Your task to perform on an android device: delete a single message in the gmail app Image 0: 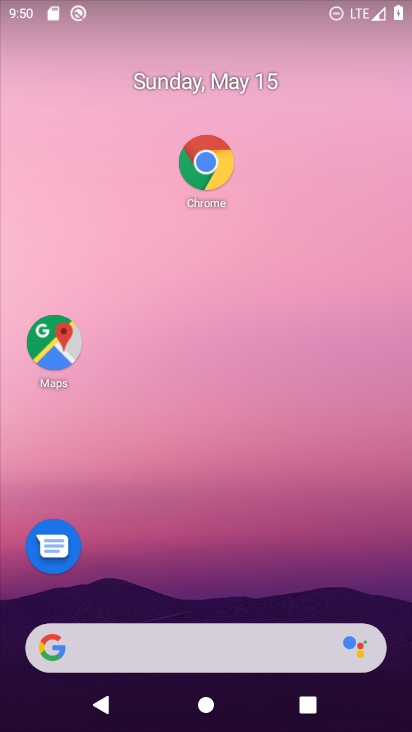
Step 0: drag from (196, 585) to (227, 69)
Your task to perform on an android device: delete a single message in the gmail app Image 1: 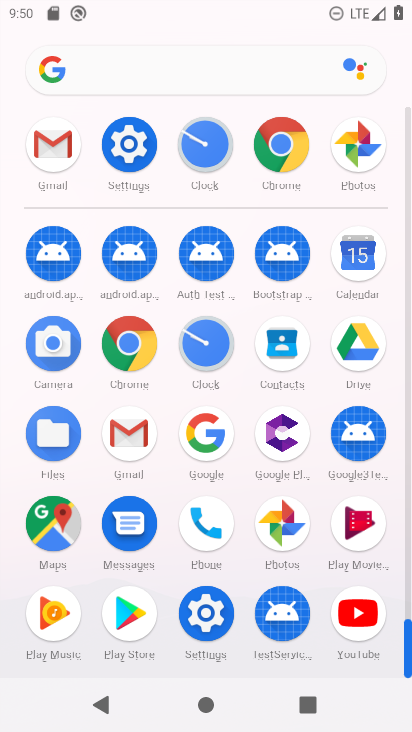
Step 1: click (116, 431)
Your task to perform on an android device: delete a single message in the gmail app Image 2: 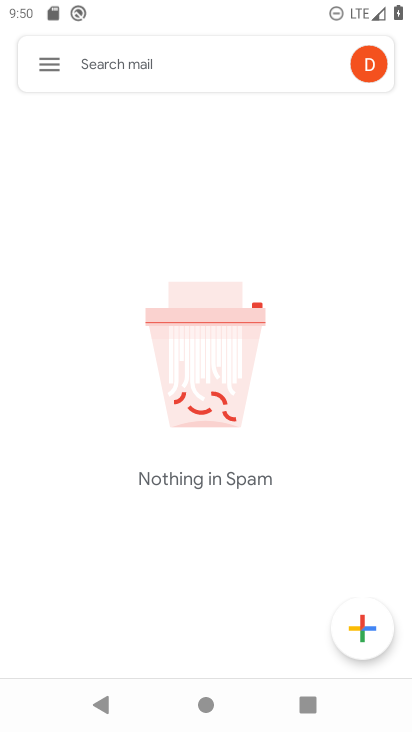
Step 2: click (35, 64)
Your task to perform on an android device: delete a single message in the gmail app Image 3: 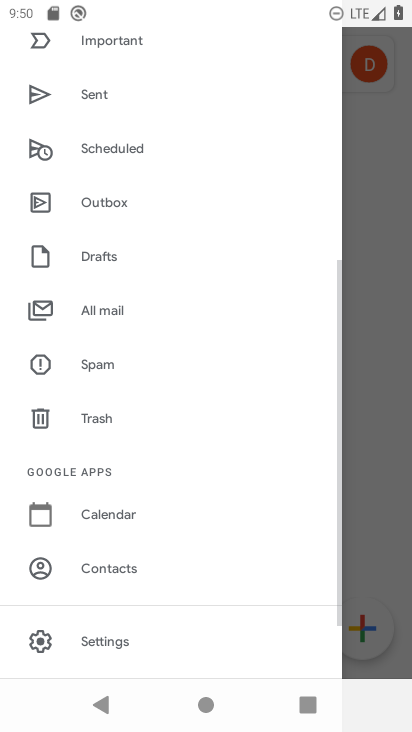
Step 3: click (128, 319)
Your task to perform on an android device: delete a single message in the gmail app Image 4: 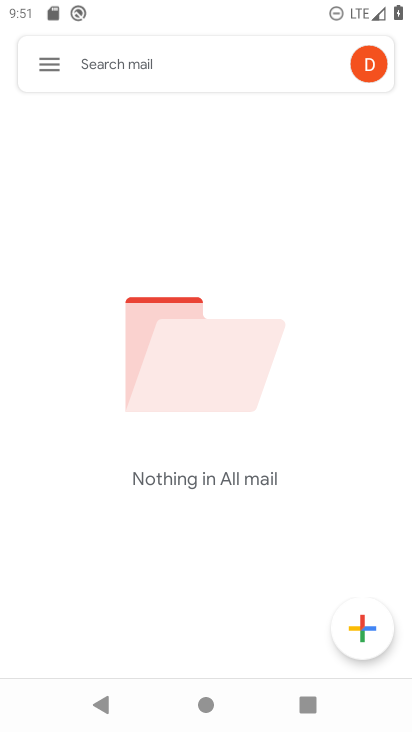
Step 4: task complete